Your task to perform on an android device: Check the news Image 0: 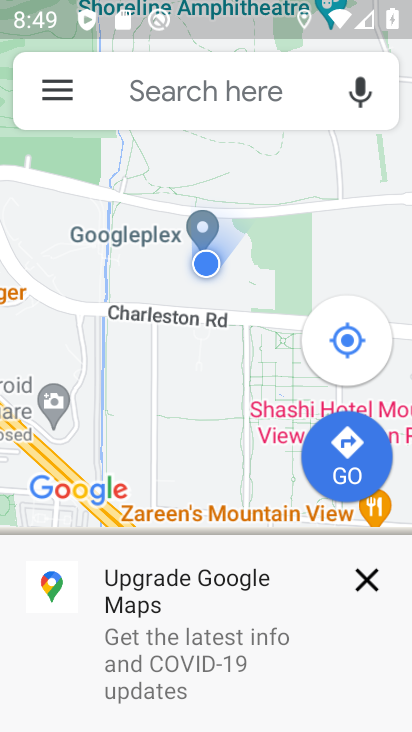
Step 0: press back button
Your task to perform on an android device: Check the news Image 1: 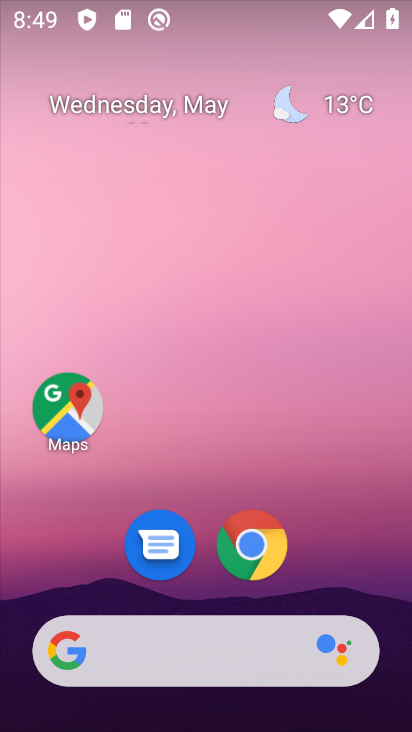
Step 1: drag from (334, 551) to (262, 20)
Your task to perform on an android device: Check the news Image 2: 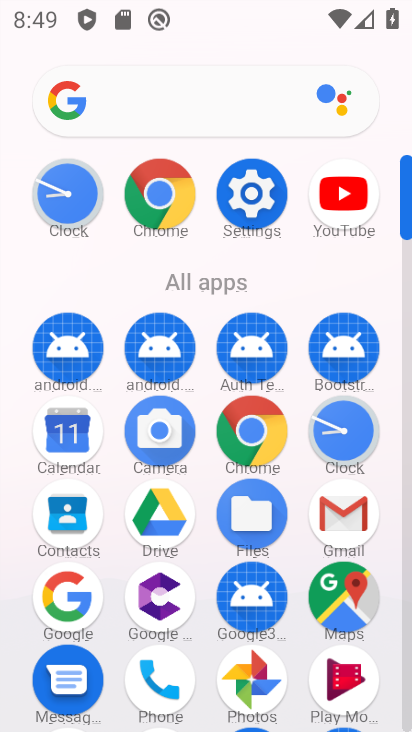
Step 2: click (155, 181)
Your task to perform on an android device: Check the news Image 3: 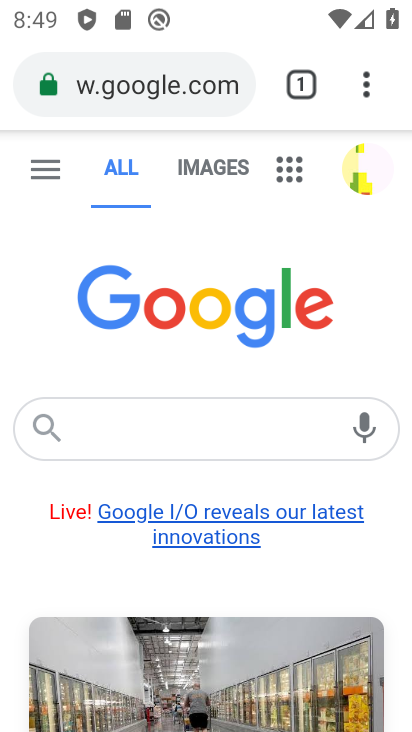
Step 3: click (153, 77)
Your task to perform on an android device: Check the news Image 4: 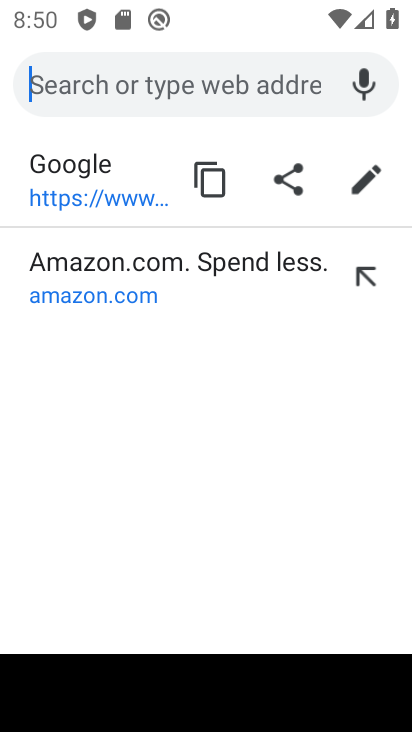
Step 4: type "Check the news"
Your task to perform on an android device: Check the news Image 5: 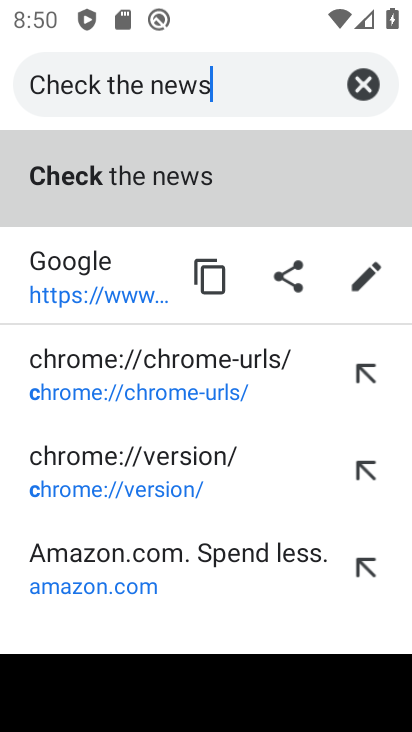
Step 5: type ""
Your task to perform on an android device: Check the news Image 6: 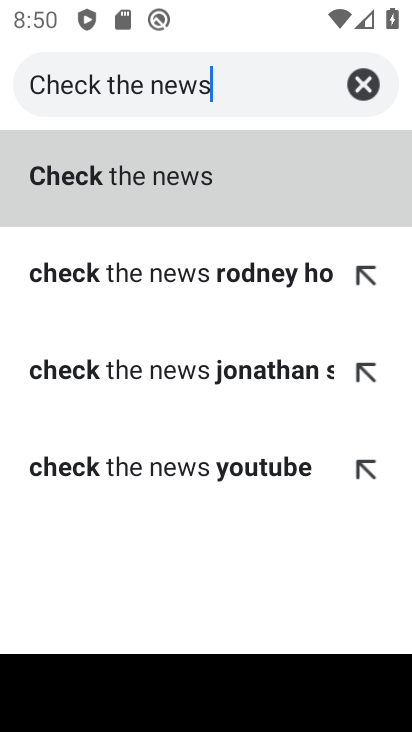
Step 6: click (156, 172)
Your task to perform on an android device: Check the news Image 7: 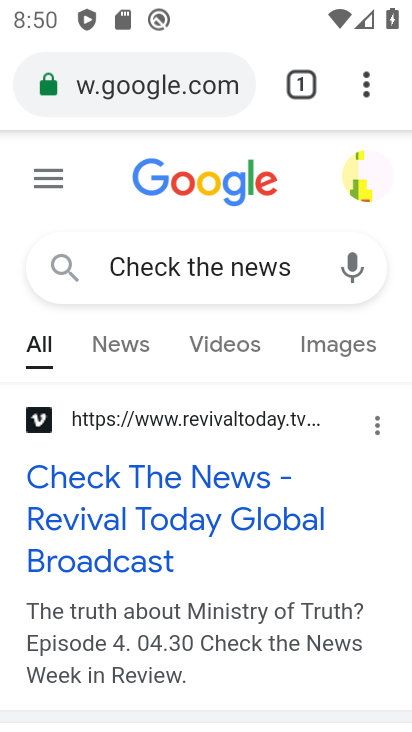
Step 7: drag from (277, 547) to (286, 220)
Your task to perform on an android device: Check the news Image 8: 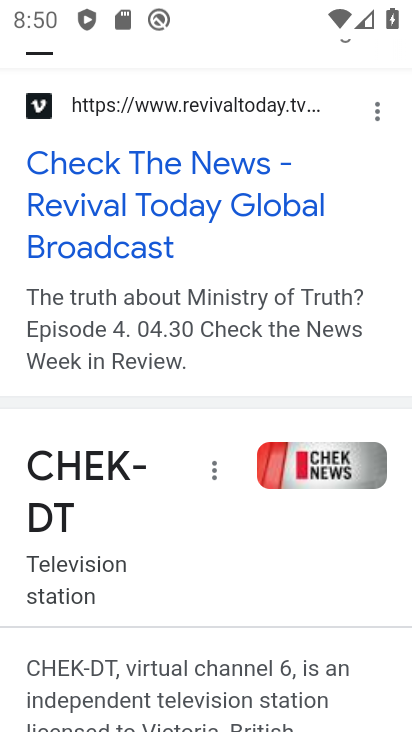
Step 8: drag from (271, 208) to (245, 489)
Your task to perform on an android device: Check the news Image 9: 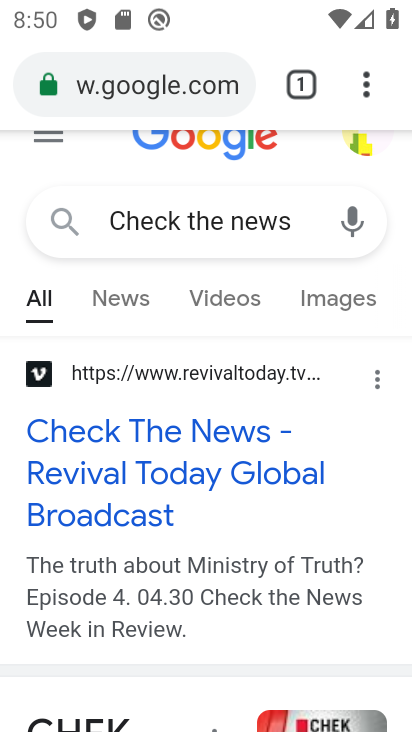
Step 9: drag from (204, 191) to (165, 298)
Your task to perform on an android device: Check the news Image 10: 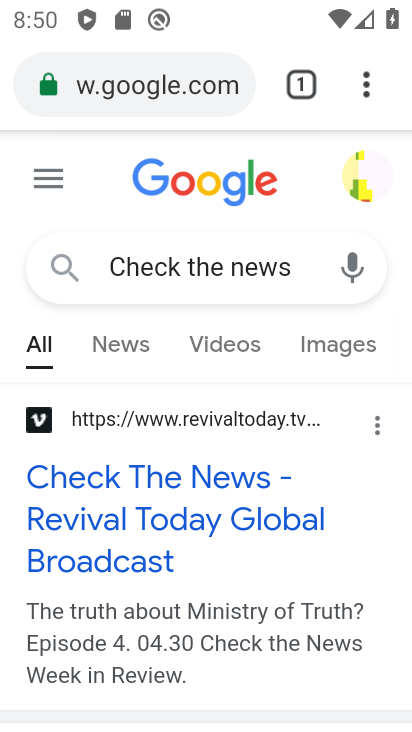
Step 10: click (135, 348)
Your task to perform on an android device: Check the news Image 11: 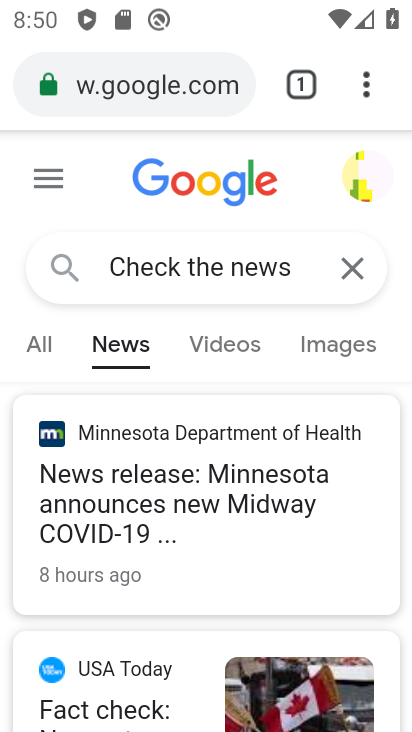
Step 11: task complete